Your task to perform on an android device: Is it going to rain this weekend? Image 0: 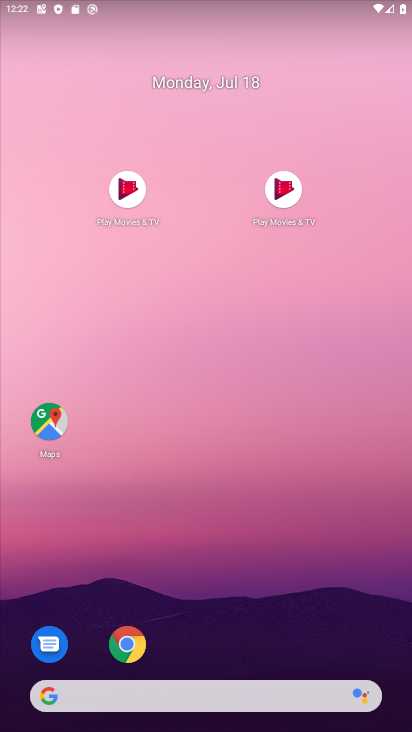
Step 0: drag from (345, 568) to (216, 62)
Your task to perform on an android device: Is it going to rain this weekend? Image 1: 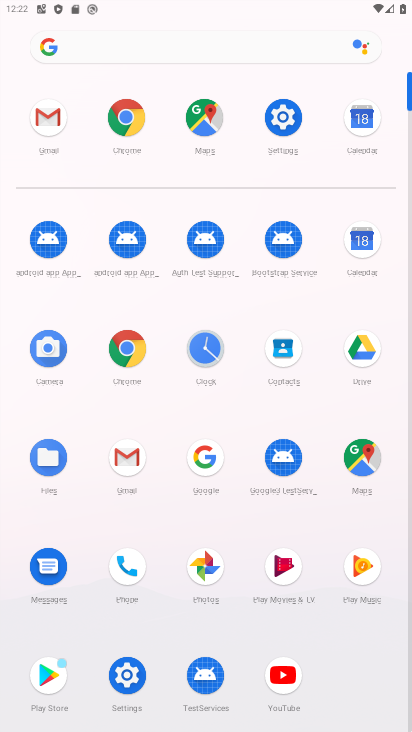
Step 1: click (130, 344)
Your task to perform on an android device: Is it going to rain this weekend? Image 2: 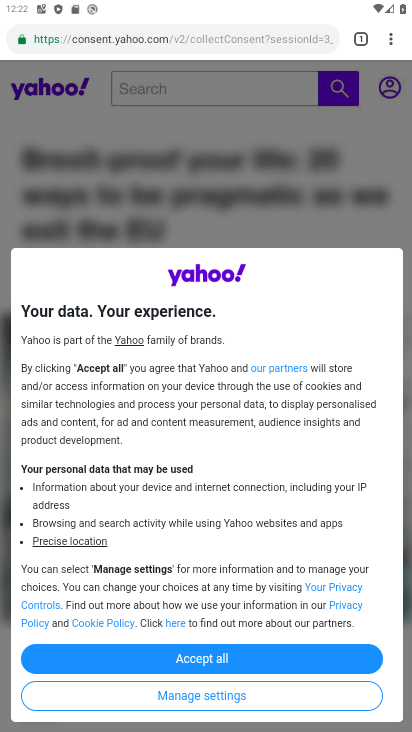
Step 2: click (183, 37)
Your task to perform on an android device: Is it going to rain this weekend? Image 3: 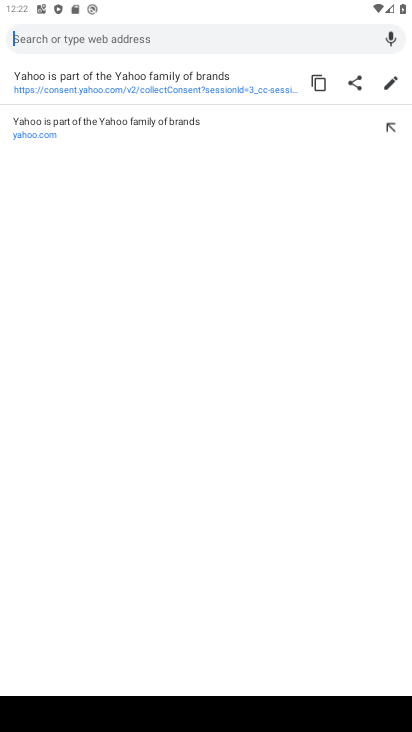
Step 3: type "weather"
Your task to perform on an android device: Is it going to rain this weekend? Image 4: 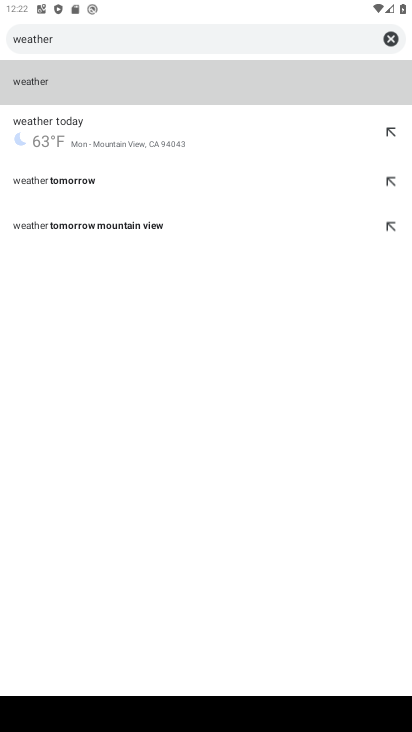
Step 4: click (30, 80)
Your task to perform on an android device: Is it going to rain this weekend? Image 5: 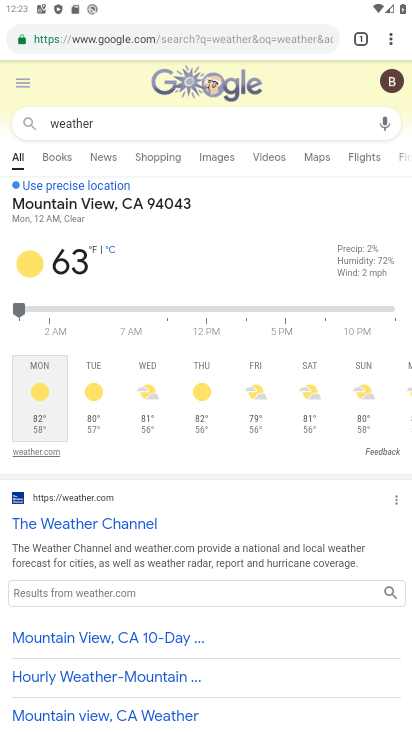
Step 5: click (312, 390)
Your task to perform on an android device: Is it going to rain this weekend? Image 6: 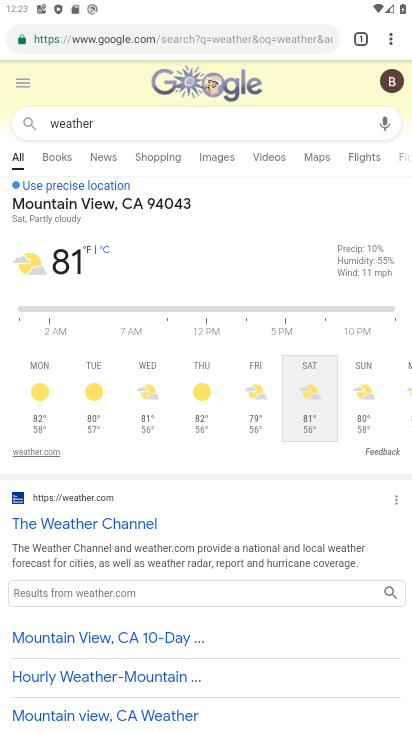
Step 6: task complete